Your task to perform on an android device: Open calendar and show me the second week of next month Image 0: 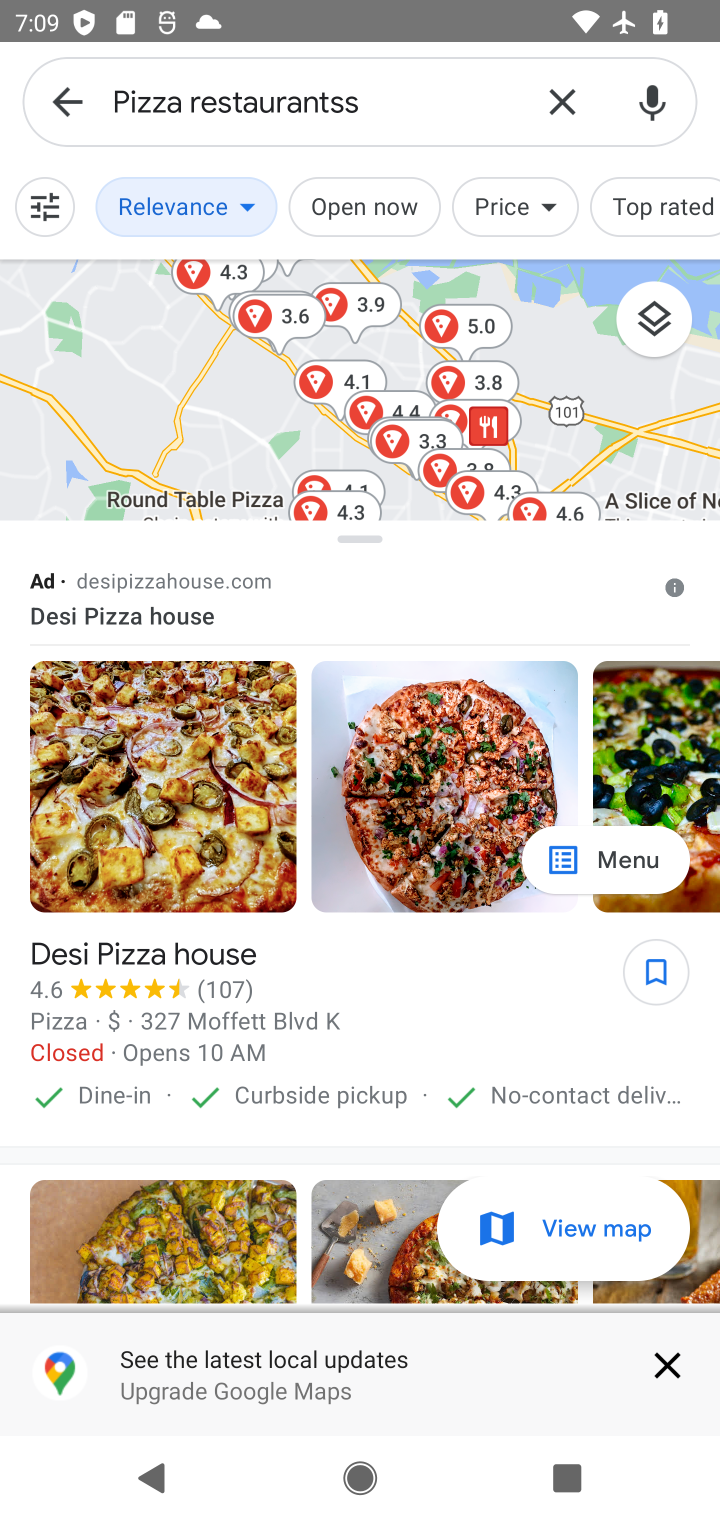
Step 0: press home button
Your task to perform on an android device: Open calendar and show me the second week of next month Image 1: 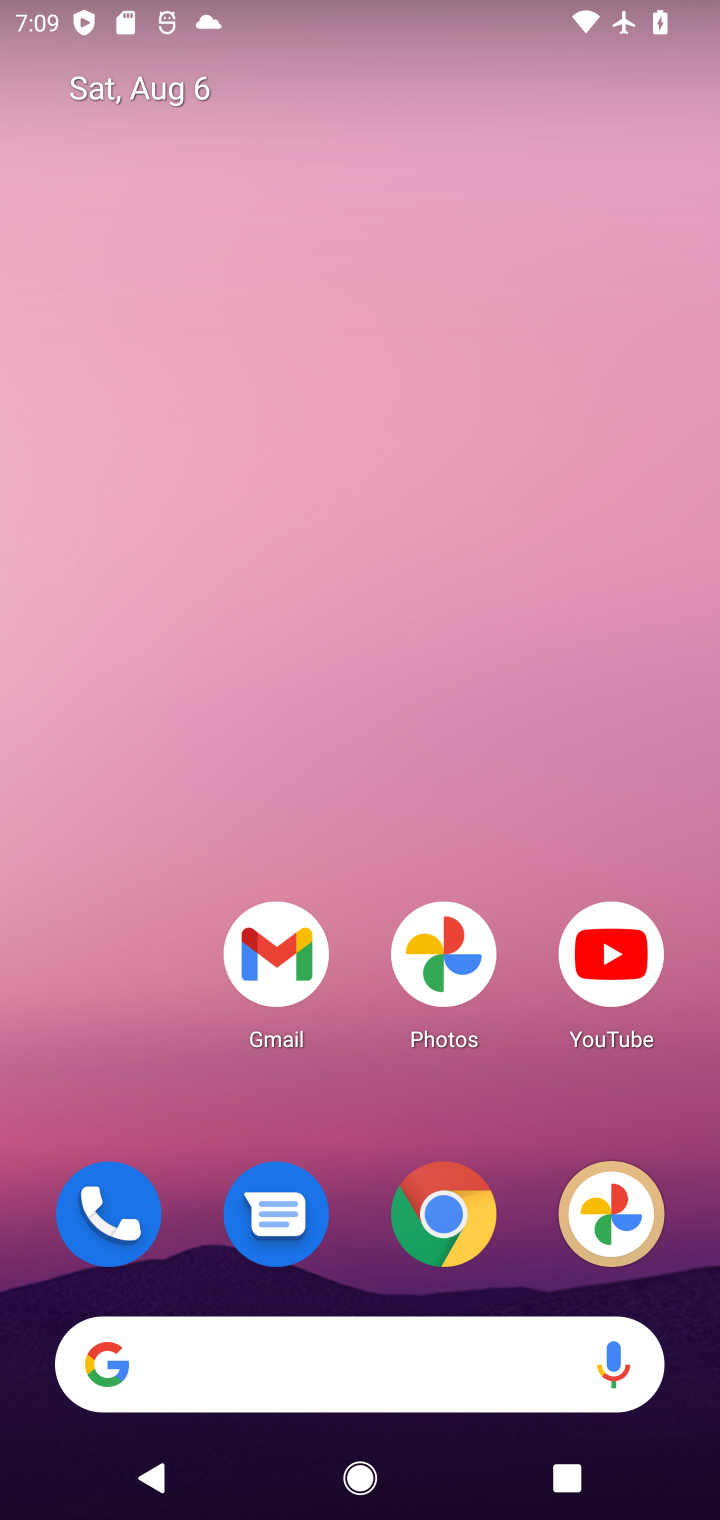
Step 1: drag from (362, 1241) to (79, 8)
Your task to perform on an android device: Open calendar and show me the second week of next month Image 2: 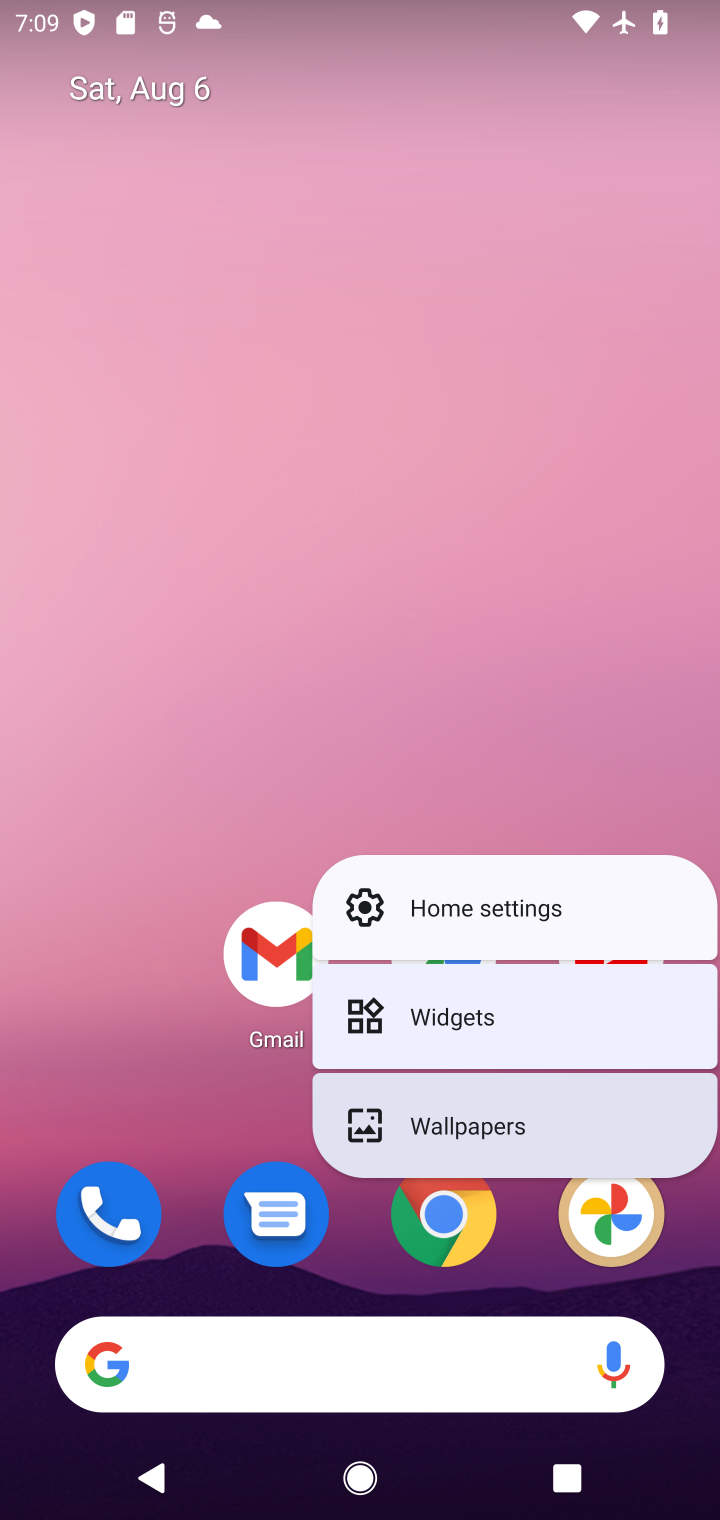
Step 2: drag from (189, 1202) to (563, 50)
Your task to perform on an android device: Open calendar and show me the second week of next month Image 3: 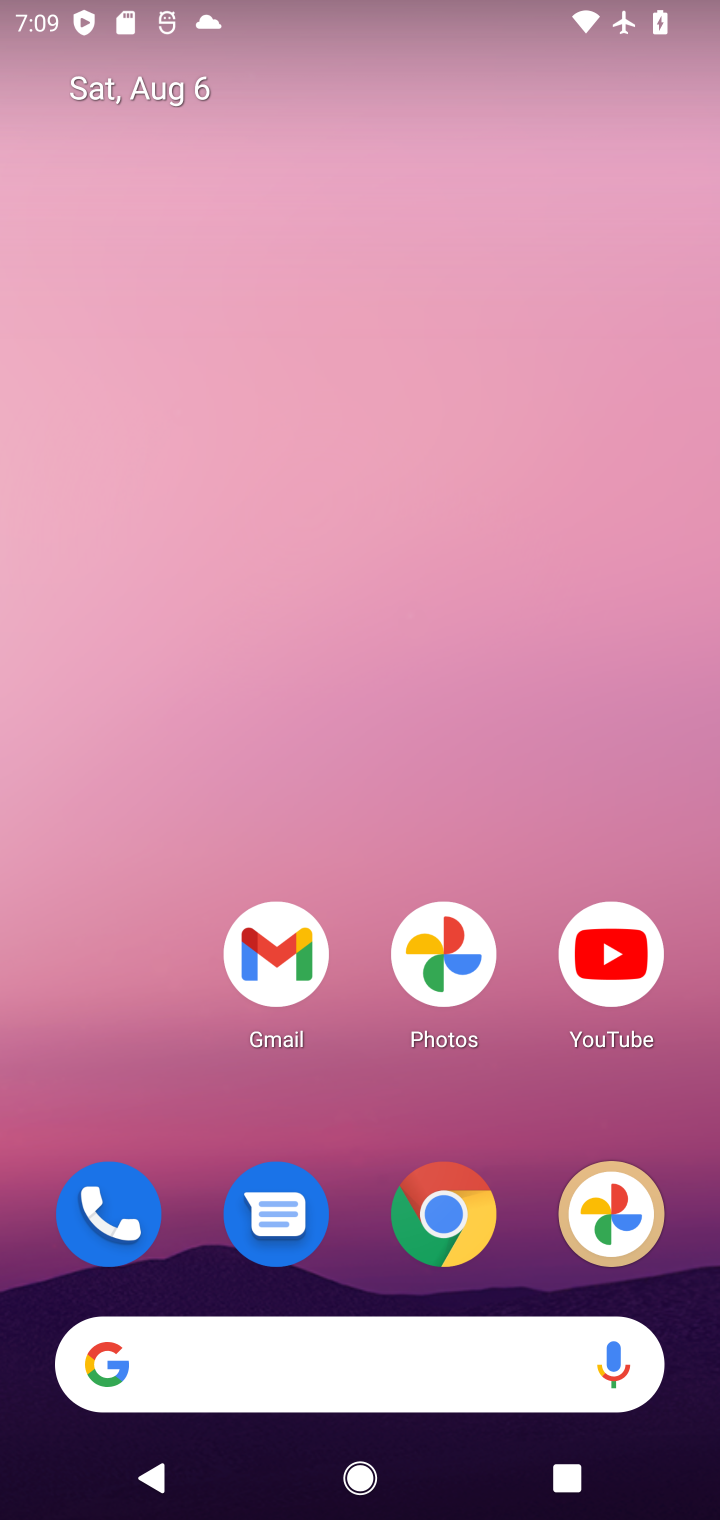
Step 3: drag from (340, 1305) to (319, 33)
Your task to perform on an android device: Open calendar and show me the second week of next month Image 4: 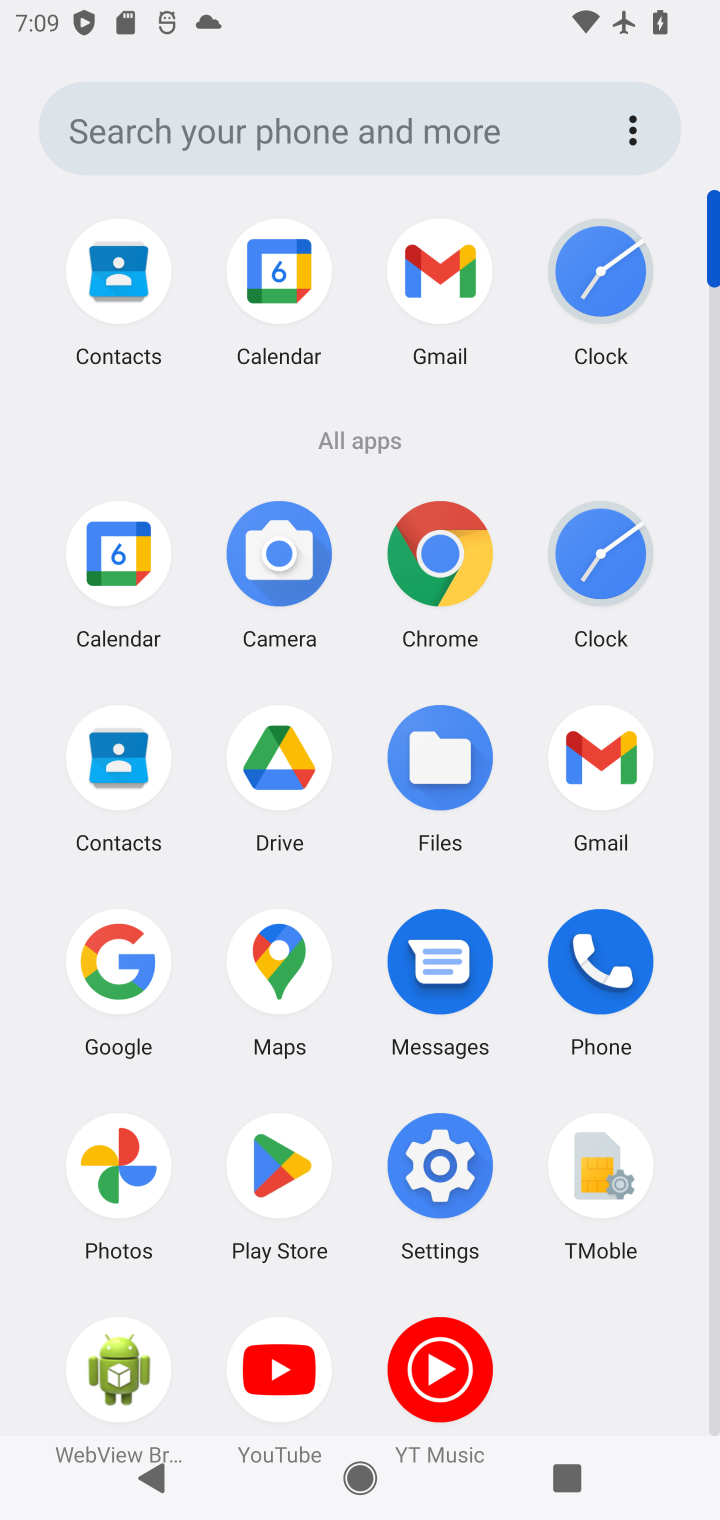
Step 4: click (126, 593)
Your task to perform on an android device: Open calendar and show me the second week of next month Image 5: 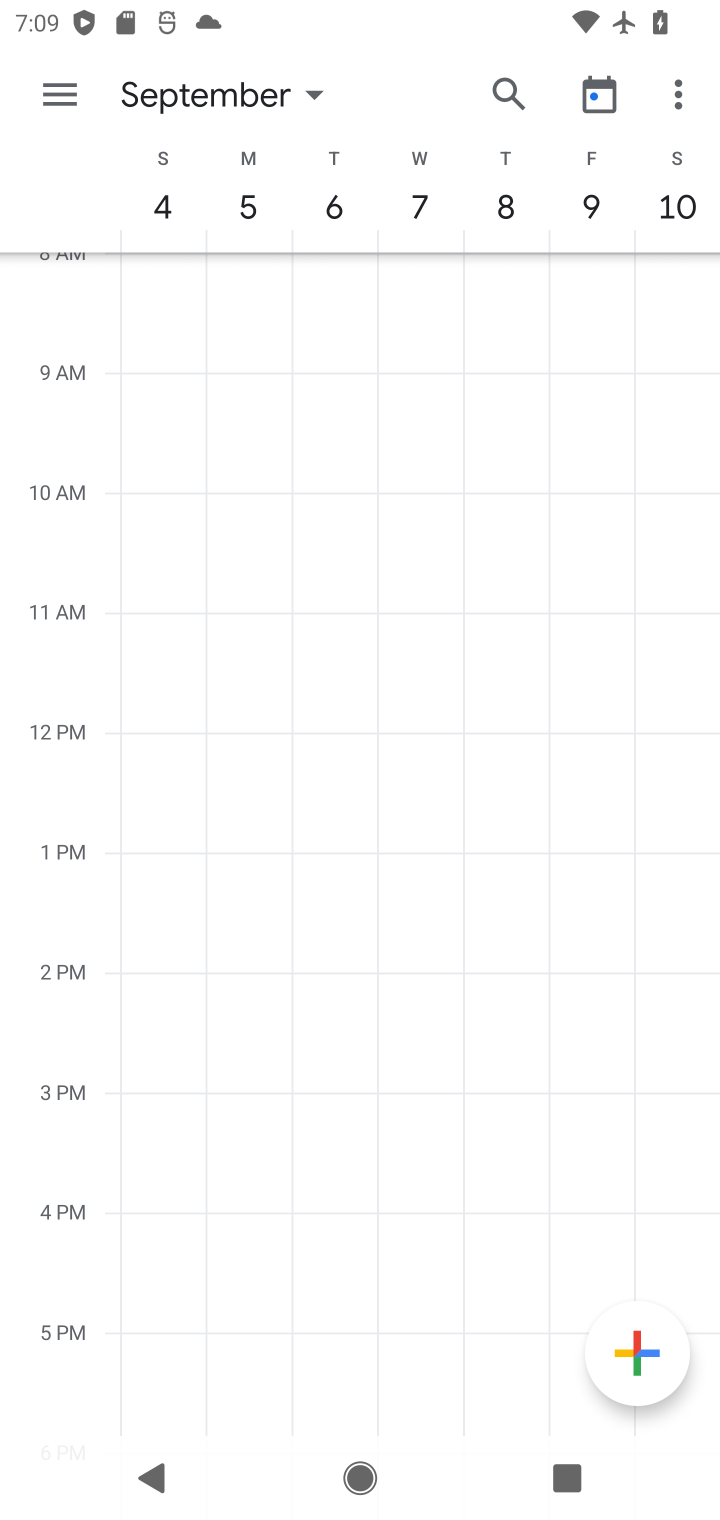
Step 5: task complete